Your task to perform on an android device: delete the emails in spam in the gmail app Image 0: 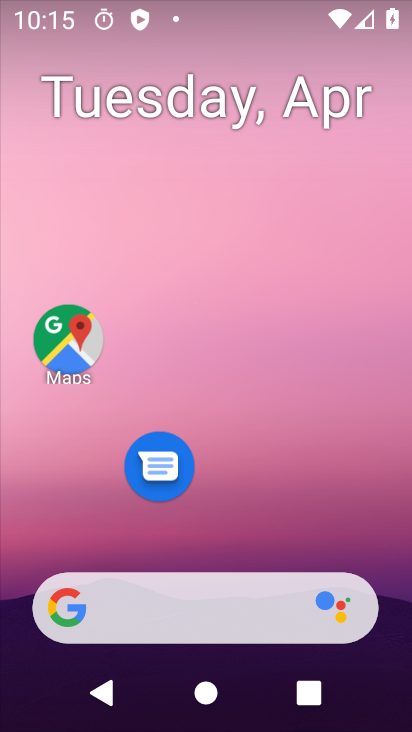
Step 0: drag from (275, 527) to (216, 84)
Your task to perform on an android device: delete the emails in spam in the gmail app Image 1: 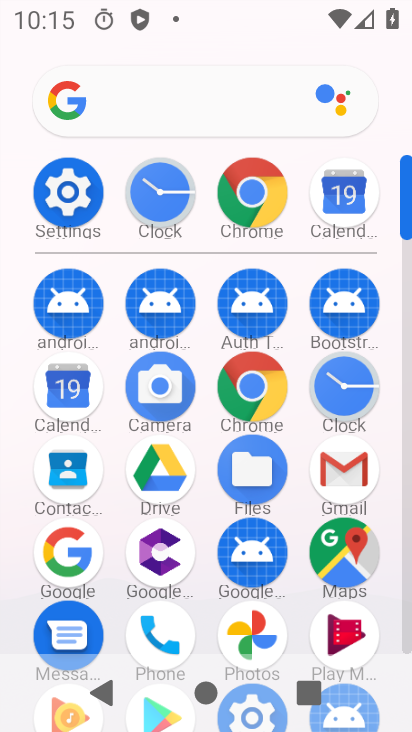
Step 1: click (343, 469)
Your task to perform on an android device: delete the emails in spam in the gmail app Image 2: 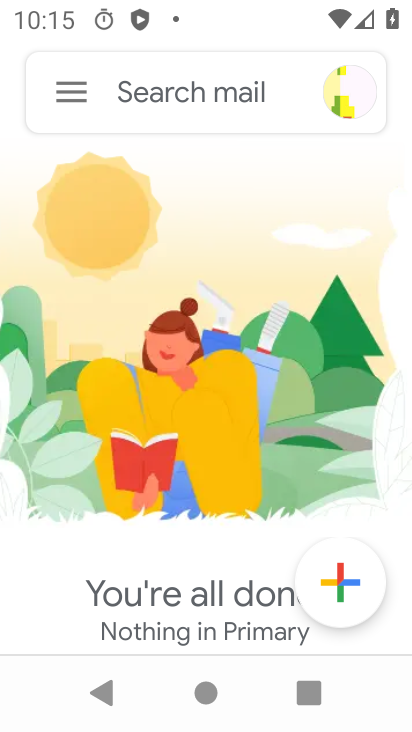
Step 2: click (72, 96)
Your task to perform on an android device: delete the emails in spam in the gmail app Image 3: 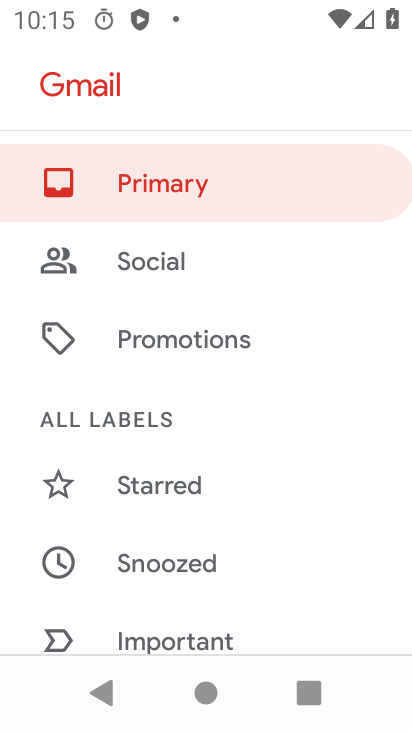
Step 3: drag from (202, 637) to (243, 206)
Your task to perform on an android device: delete the emails in spam in the gmail app Image 4: 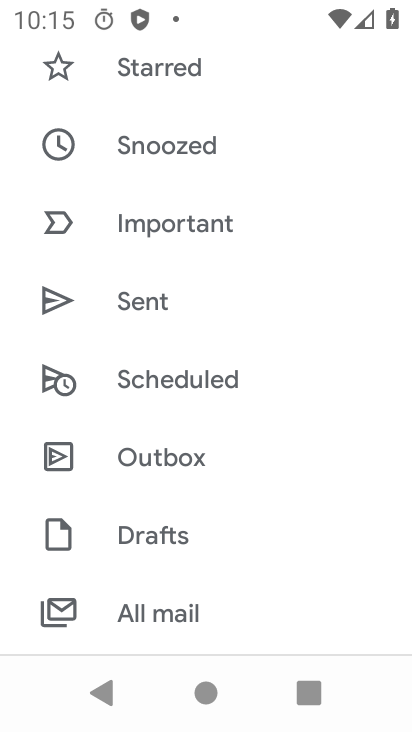
Step 4: drag from (207, 570) to (226, 450)
Your task to perform on an android device: delete the emails in spam in the gmail app Image 5: 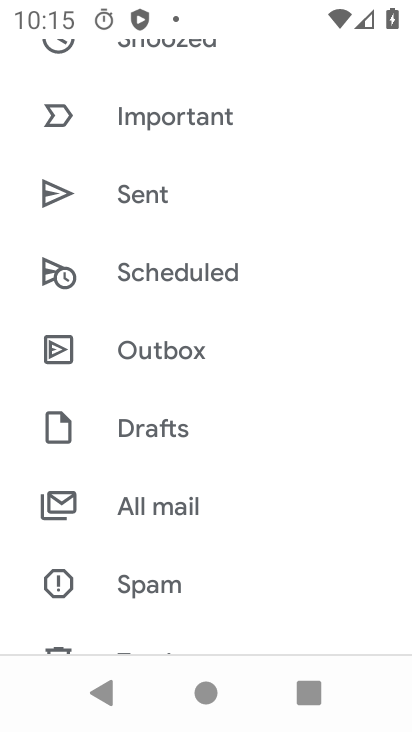
Step 5: click (201, 582)
Your task to perform on an android device: delete the emails in spam in the gmail app Image 6: 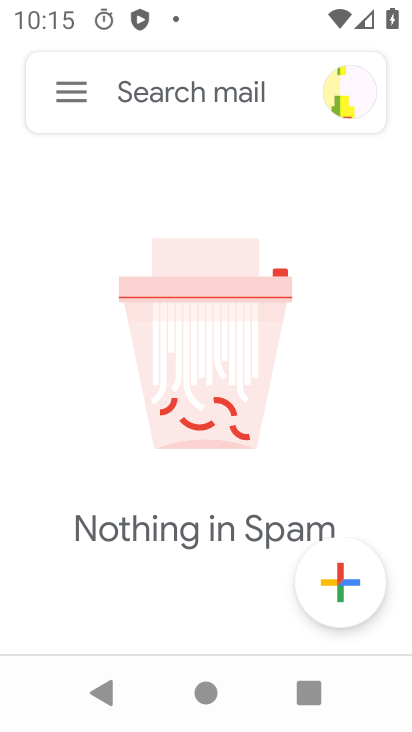
Step 6: task complete